Your task to perform on an android device: Is it going to rain today? Image 0: 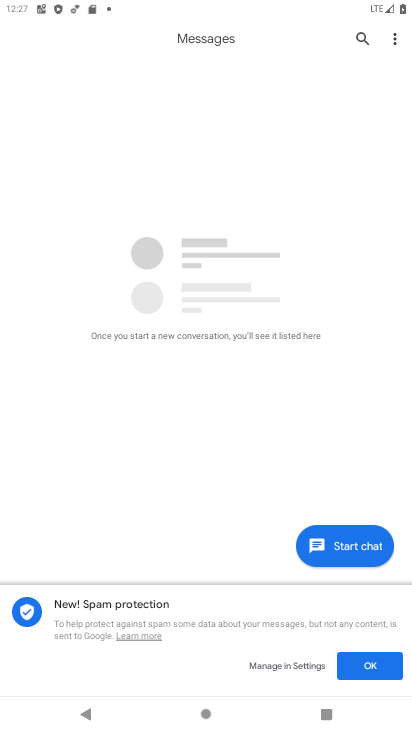
Step 0: press home button
Your task to perform on an android device: Is it going to rain today? Image 1: 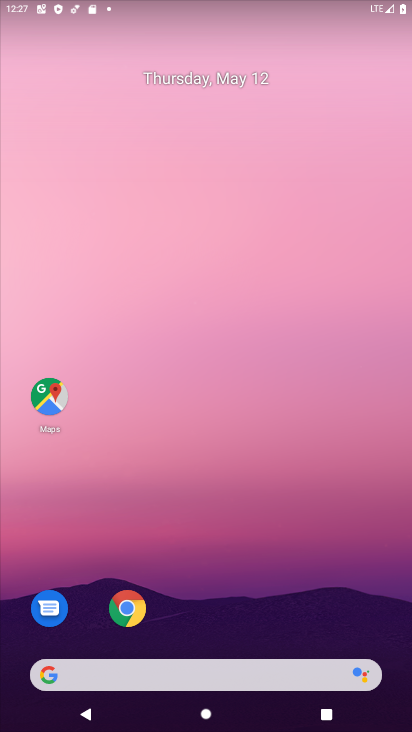
Step 1: click (146, 672)
Your task to perform on an android device: Is it going to rain today? Image 2: 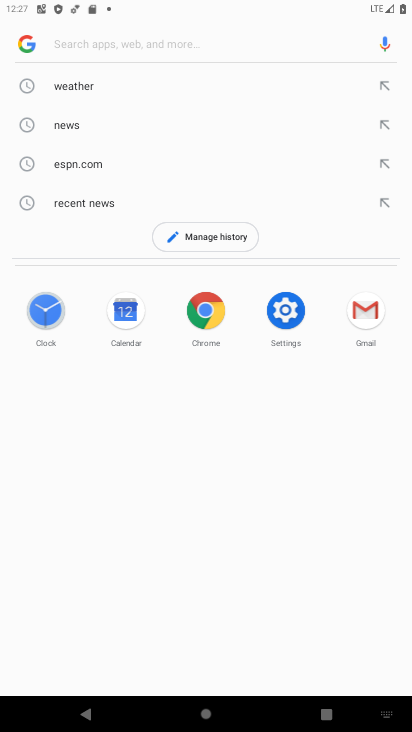
Step 2: click (71, 84)
Your task to perform on an android device: Is it going to rain today? Image 3: 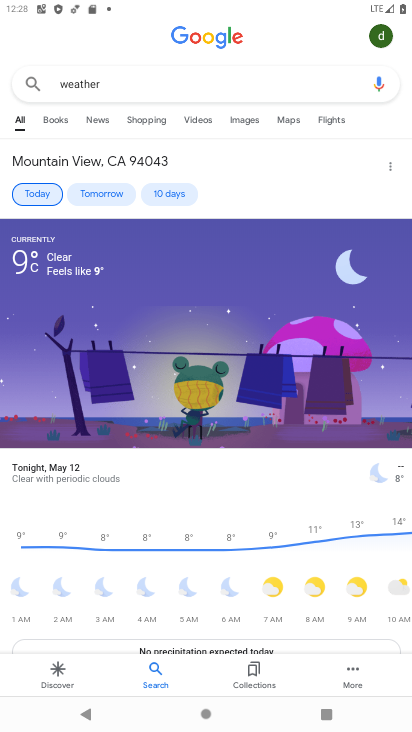
Step 3: task complete